Your task to perform on an android device: Search for seafood restaurants on Google Maps Image 0: 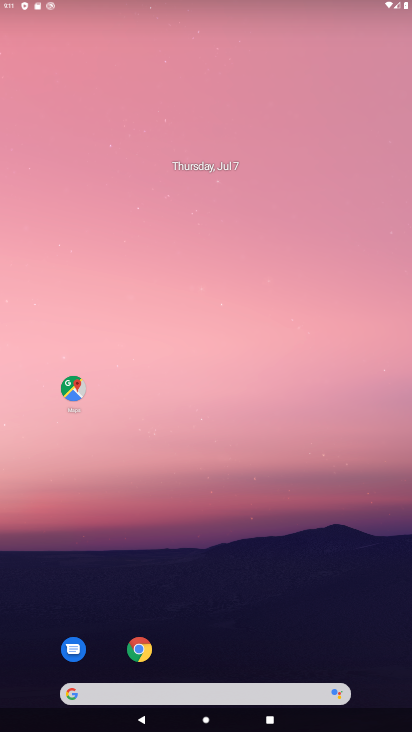
Step 0: drag from (225, 480) to (233, 289)
Your task to perform on an android device: Search for seafood restaurants on Google Maps Image 1: 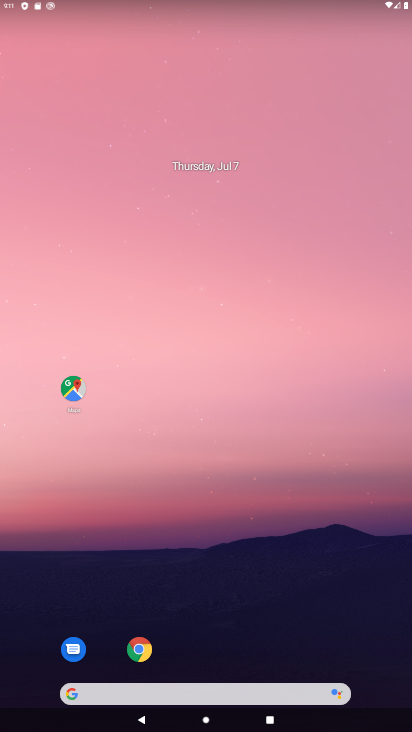
Step 1: drag from (168, 544) to (138, 126)
Your task to perform on an android device: Search for seafood restaurants on Google Maps Image 2: 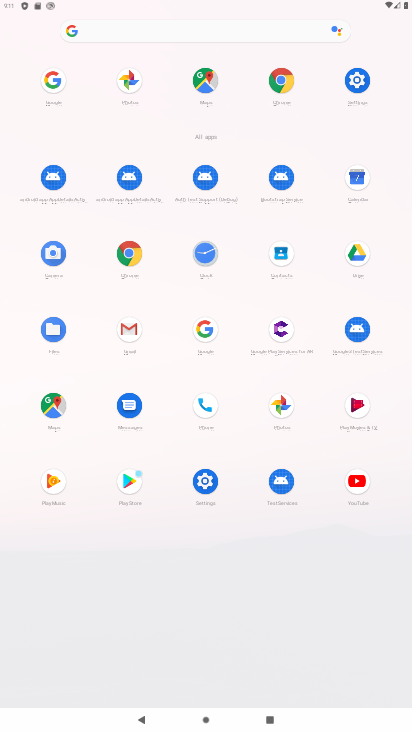
Step 2: click (202, 80)
Your task to perform on an android device: Search for seafood restaurants on Google Maps Image 3: 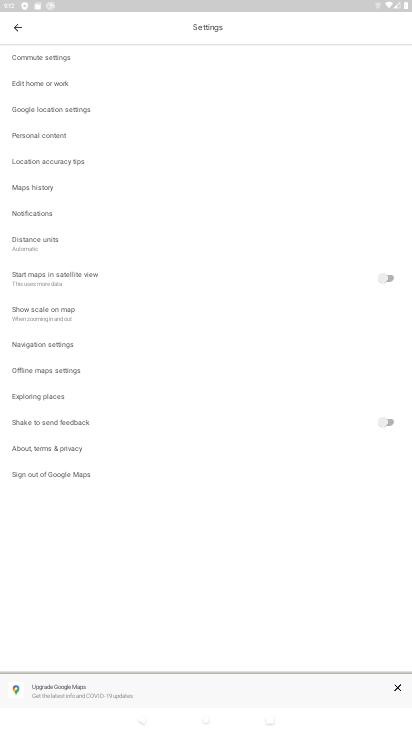
Step 3: click (17, 24)
Your task to perform on an android device: Search for seafood restaurants on Google Maps Image 4: 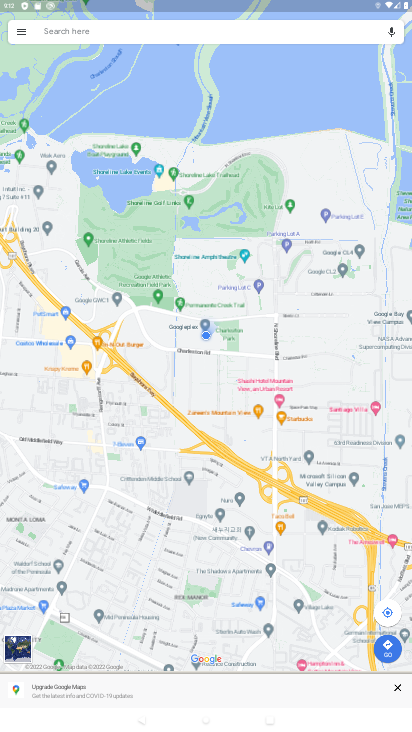
Step 4: click (159, 32)
Your task to perform on an android device: Search for seafood restaurants on Google Maps Image 5: 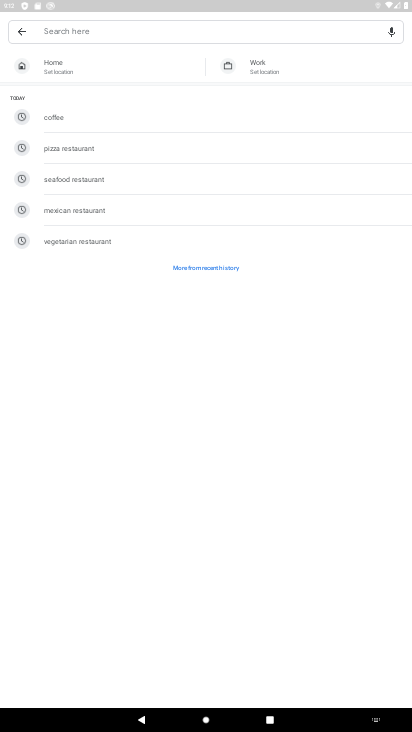
Step 5: type " seafood restaurants "
Your task to perform on an android device: Search for seafood restaurants on Google Maps Image 6: 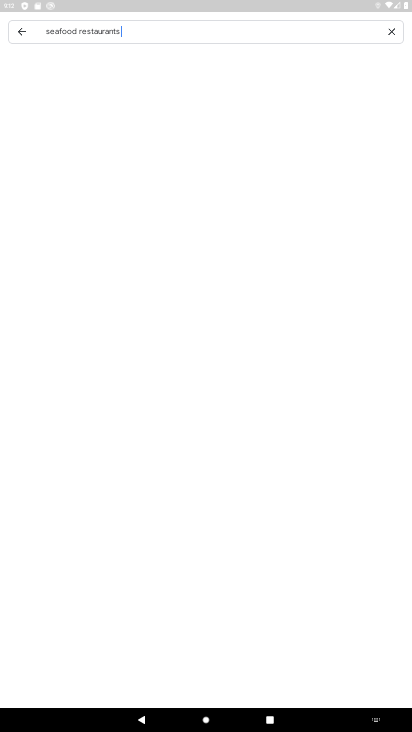
Step 6: press enter
Your task to perform on an android device: Search for seafood restaurants on Google Maps Image 7: 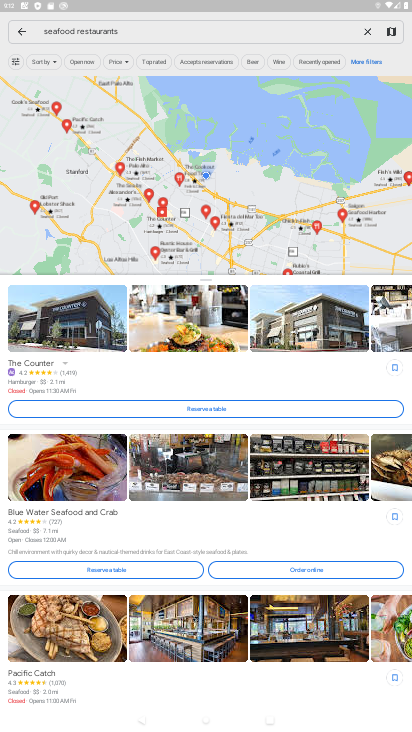
Step 7: task complete